Your task to perform on an android device: Go to eBay Image 0: 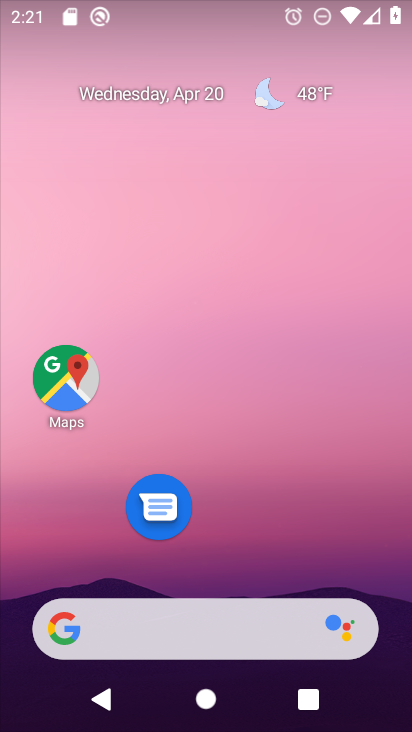
Step 0: drag from (204, 714) to (194, 127)
Your task to perform on an android device: Go to eBay Image 1: 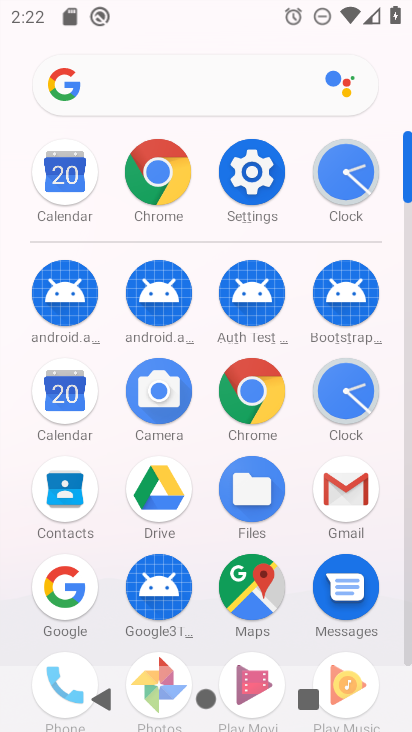
Step 1: click (255, 393)
Your task to perform on an android device: Go to eBay Image 2: 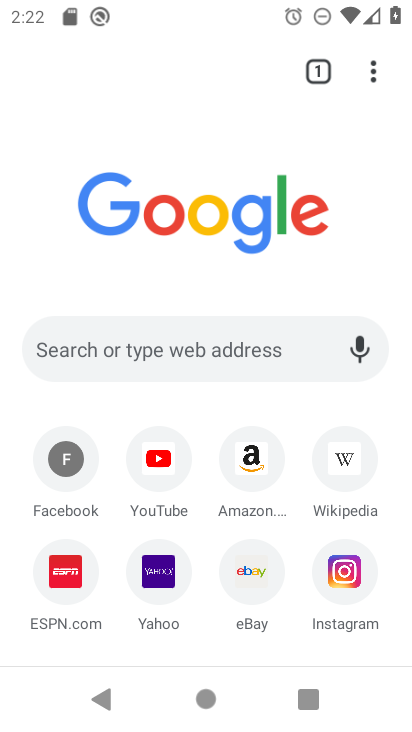
Step 2: click (257, 572)
Your task to perform on an android device: Go to eBay Image 3: 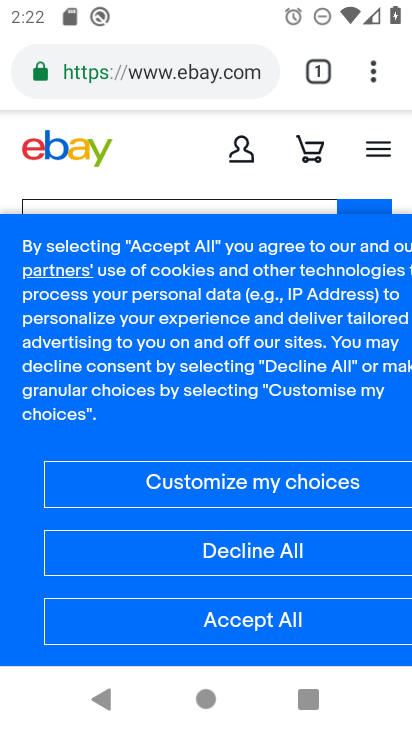
Step 3: task complete